Your task to perform on an android device: create a new album in the google photos Image 0: 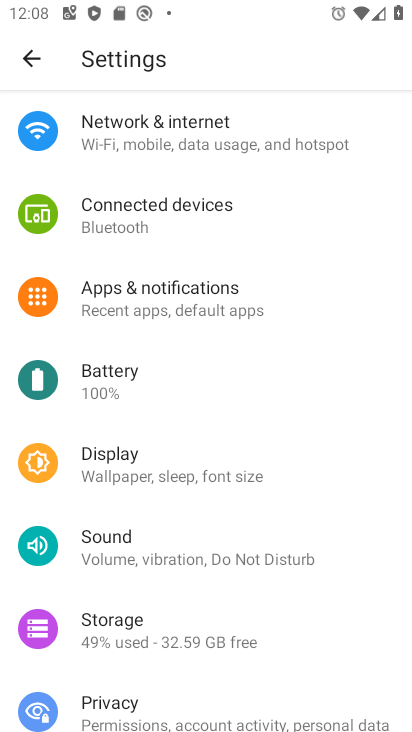
Step 0: press home button
Your task to perform on an android device: create a new album in the google photos Image 1: 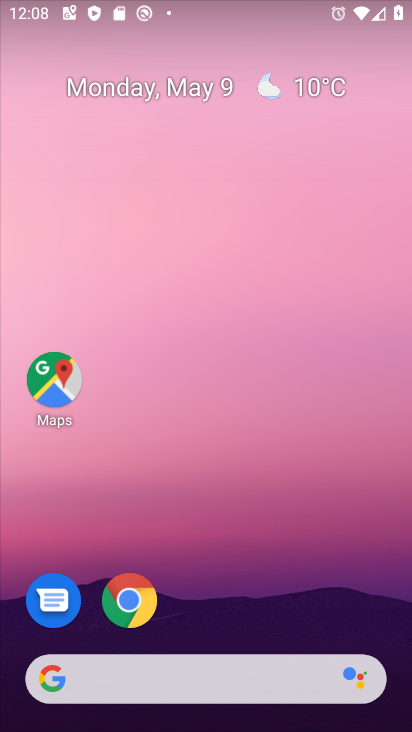
Step 1: drag from (194, 622) to (210, 202)
Your task to perform on an android device: create a new album in the google photos Image 2: 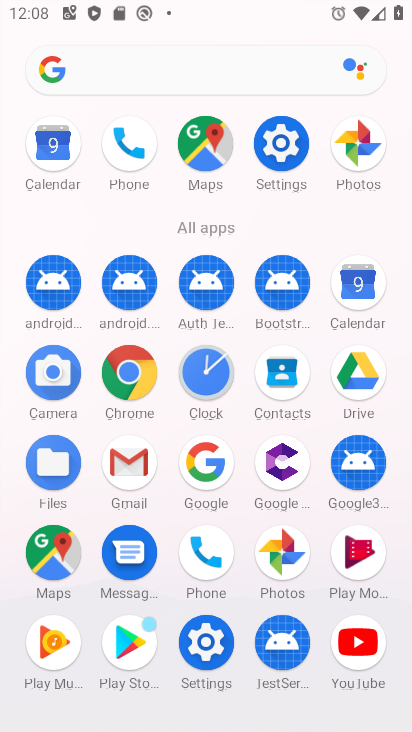
Step 2: click (274, 549)
Your task to perform on an android device: create a new album in the google photos Image 3: 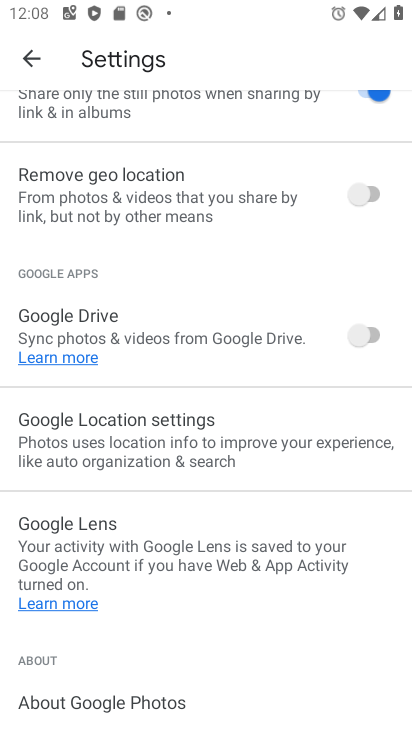
Step 3: click (34, 58)
Your task to perform on an android device: create a new album in the google photos Image 4: 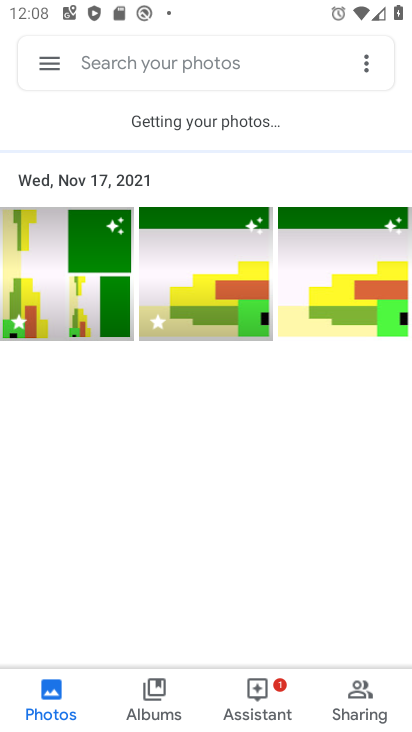
Step 4: click (366, 62)
Your task to perform on an android device: create a new album in the google photos Image 5: 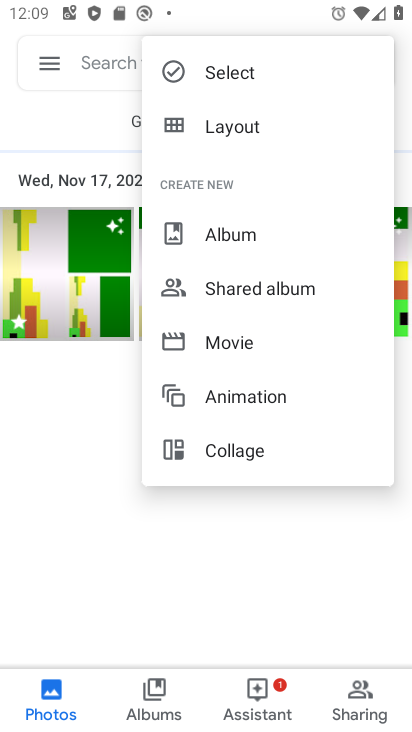
Step 5: click (216, 235)
Your task to perform on an android device: create a new album in the google photos Image 6: 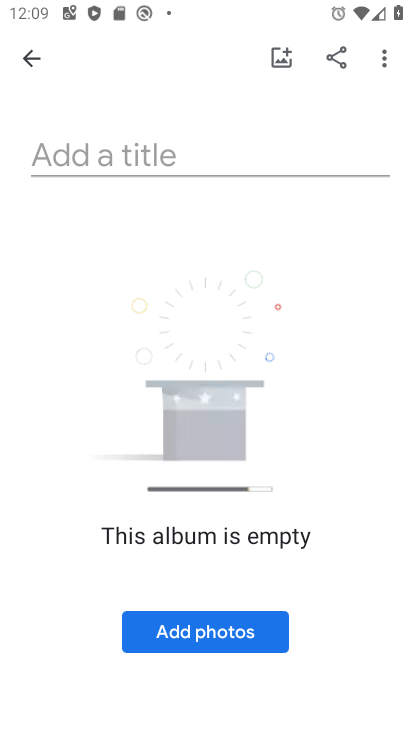
Step 6: click (92, 155)
Your task to perform on an android device: create a new album in the google photos Image 7: 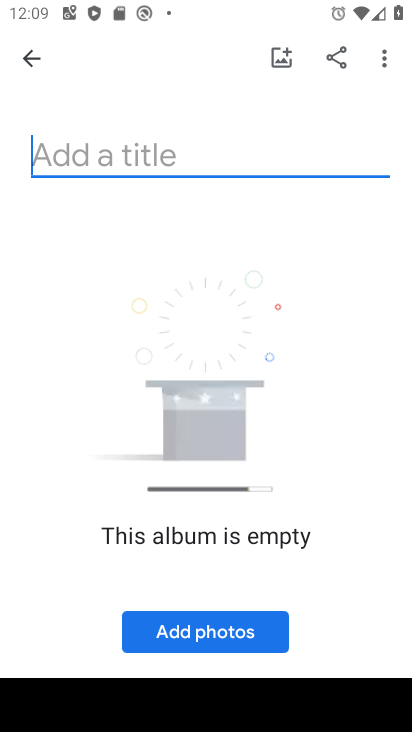
Step 7: type "hbhj"
Your task to perform on an android device: create a new album in the google photos Image 8: 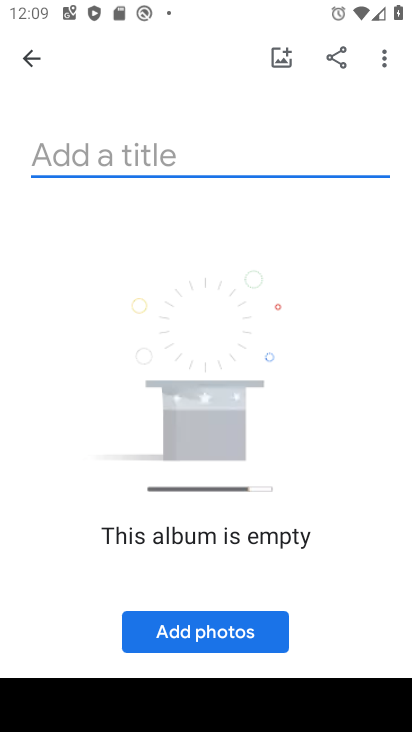
Step 8: click (249, 632)
Your task to perform on an android device: create a new album in the google photos Image 9: 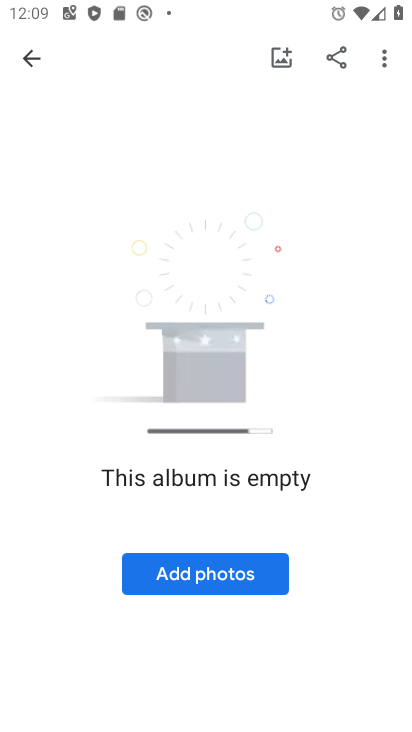
Step 9: click (212, 581)
Your task to perform on an android device: create a new album in the google photos Image 10: 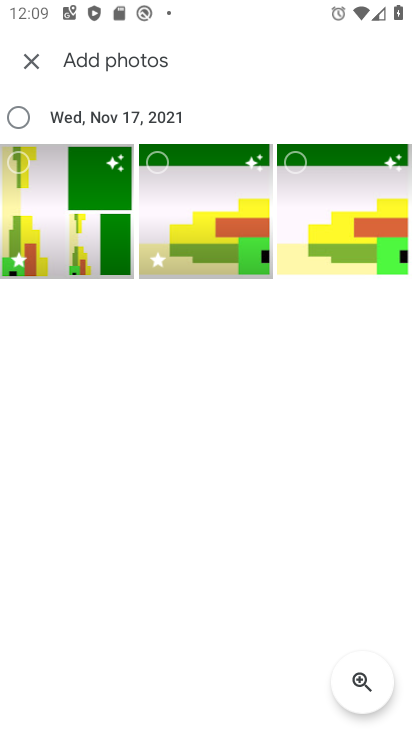
Step 10: click (15, 160)
Your task to perform on an android device: create a new album in the google photos Image 11: 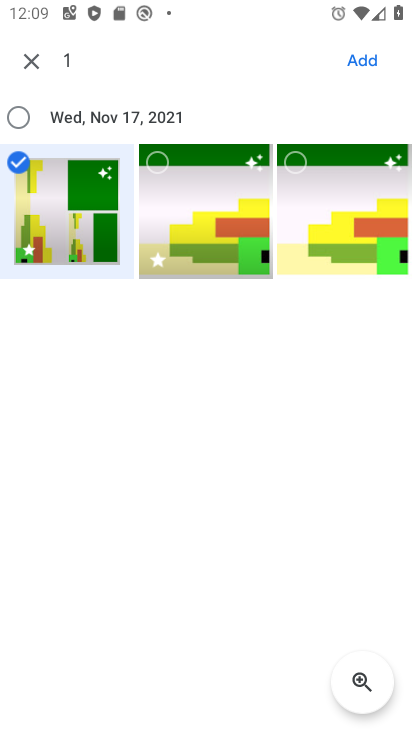
Step 11: click (350, 57)
Your task to perform on an android device: create a new album in the google photos Image 12: 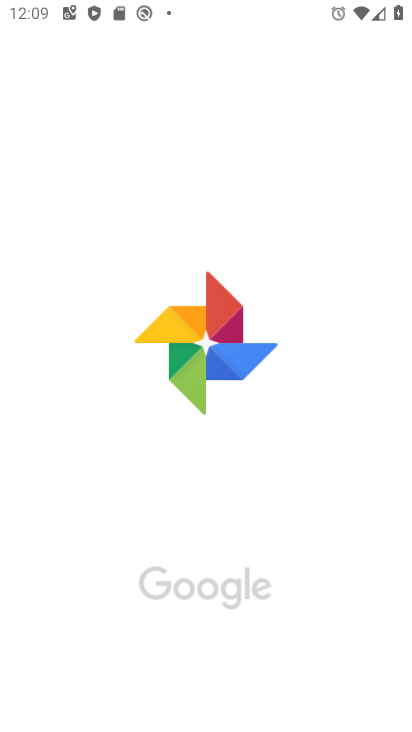
Step 12: task complete